Your task to perform on an android device: check the backup settings in the google photos Image 0: 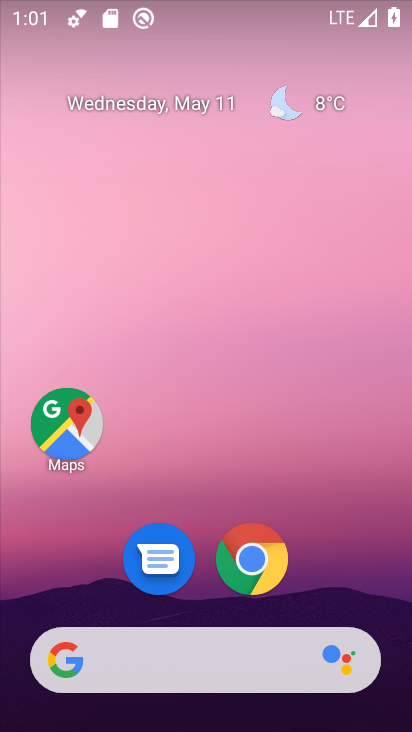
Step 0: drag from (255, 697) to (235, 116)
Your task to perform on an android device: check the backup settings in the google photos Image 1: 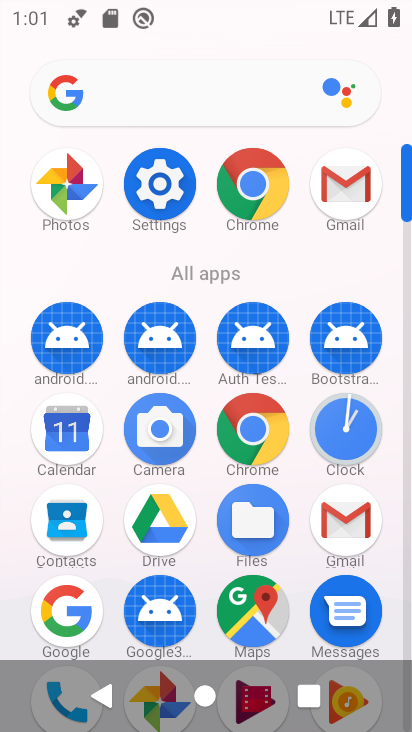
Step 1: click (63, 184)
Your task to perform on an android device: check the backup settings in the google photos Image 2: 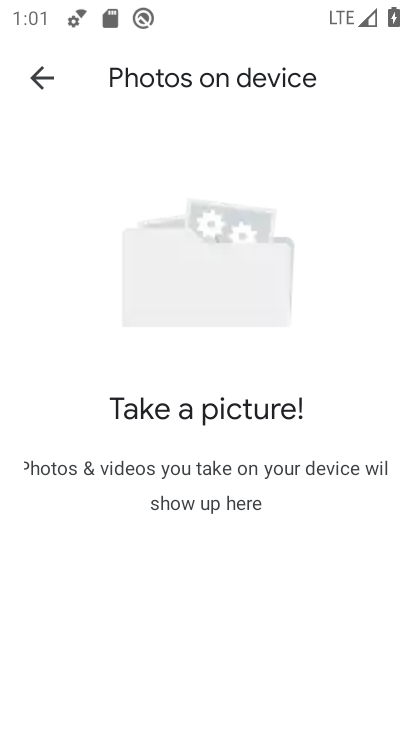
Step 2: click (43, 76)
Your task to perform on an android device: check the backup settings in the google photos Image 3: 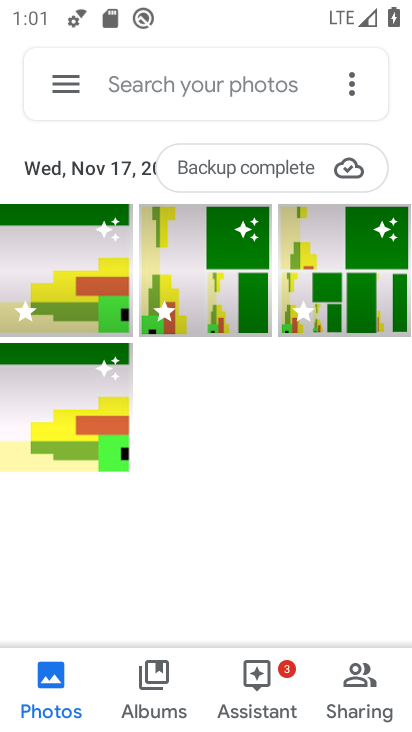
Step 3: click (70, 79)
Your task to perform on an android device: check the backup settings in the google photos Image 4: 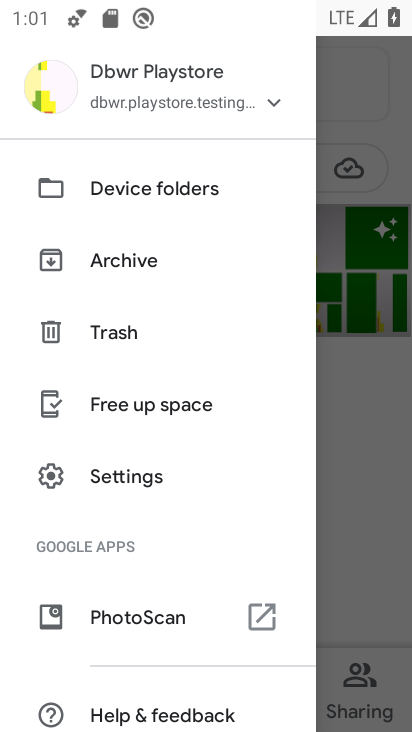
Step 4: click (127, 467)
Your task to perform on an android device: check the backup settings in the google photos Image 5: 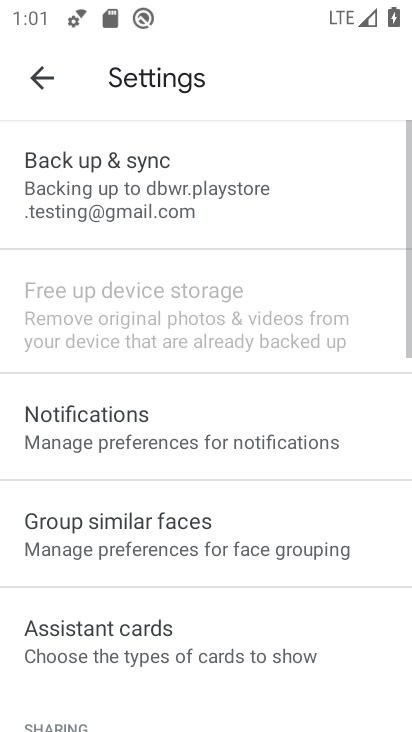
Step 5: click (120, 187)
Your task to perform on an android device: check the backup settings in the google photos Image 6: 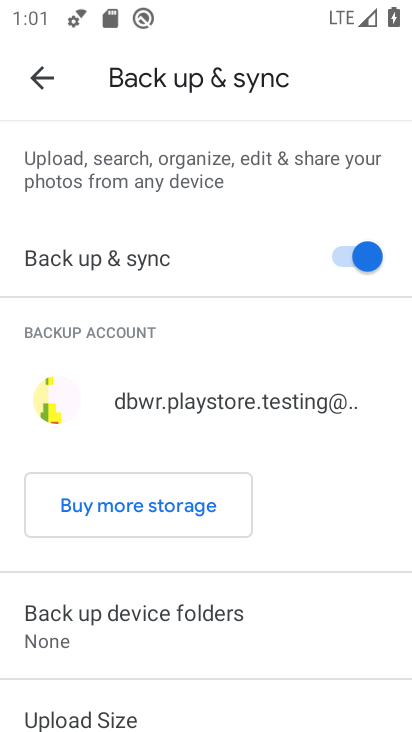
Step 6: task complete